Your task to perform on an android device: open chrome privacy settings Image 0: 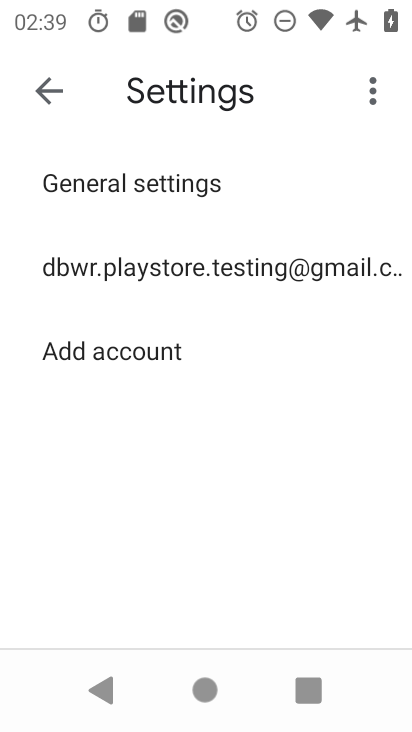
Step 0: press home button
Your task to perform on an android device: open chrome privacy settings Image 1: 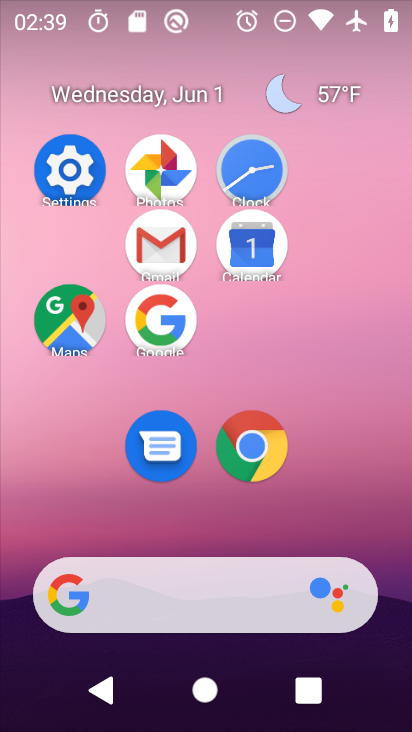
Step 1: click (91, 159)
Your task to perform on an android device: open chrome privacy settings Image 2: 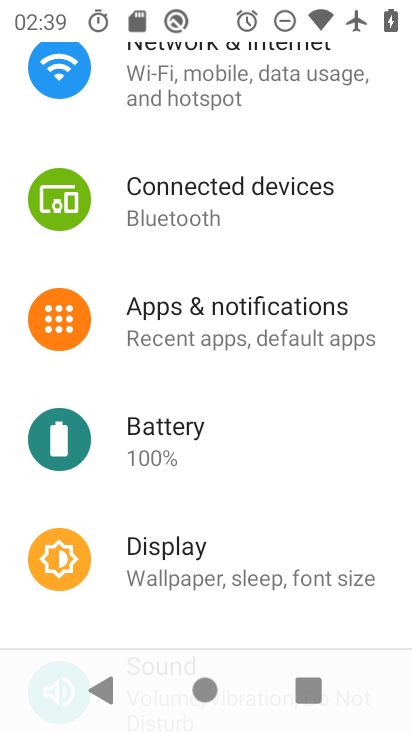
Step 2: drag from (238, 561) to (303, 122)
Your task to perform on an android device: open chrome privacy settings Image 3: 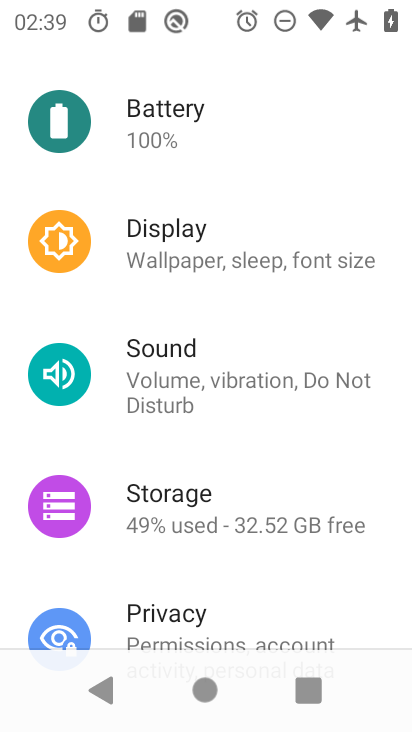
Step 3: click (243, 615)
Your task to perform on an android device: open chrome privacy settings Image 4: 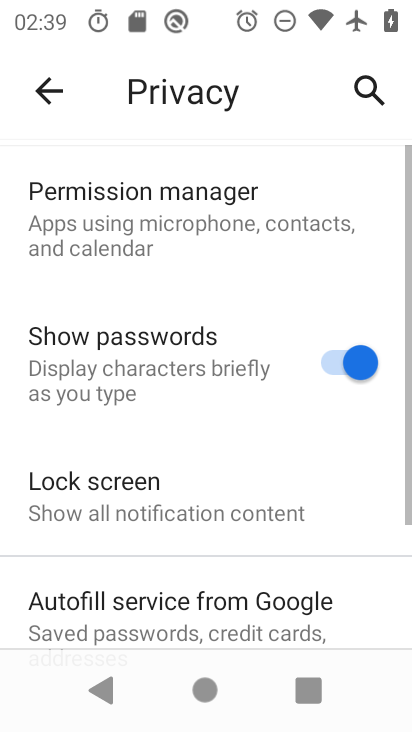
Step 4: task complete